Your task to perform on an android device: set the stopwatch Image 0: 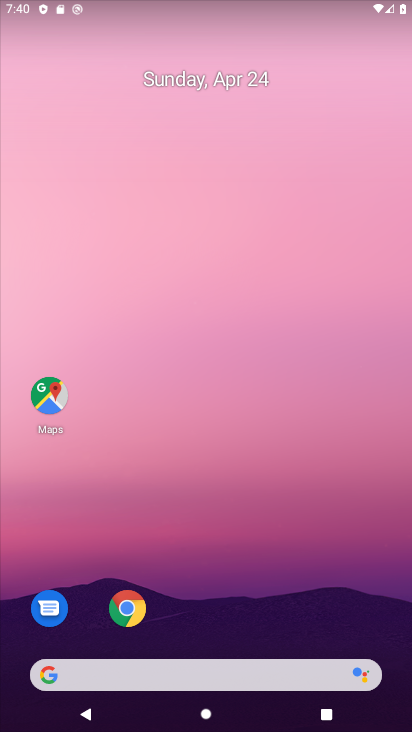
Step 0: drag from (243, 588) to (264, 110)
Your task to perform on an android device: set the stopwatch Image 1: 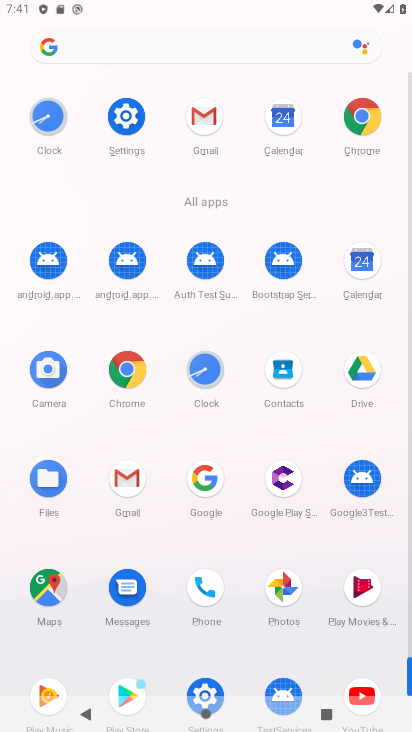
Step 1: click (215, 374)
Your task to perform on an android device: set the stopwatch Image 2: 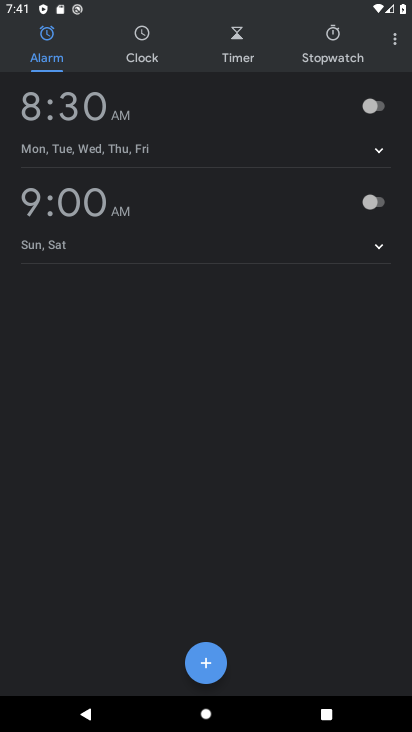
Step 2: click (327, 36)
Your task to perform on an android device: set the stopwatch Image 3: 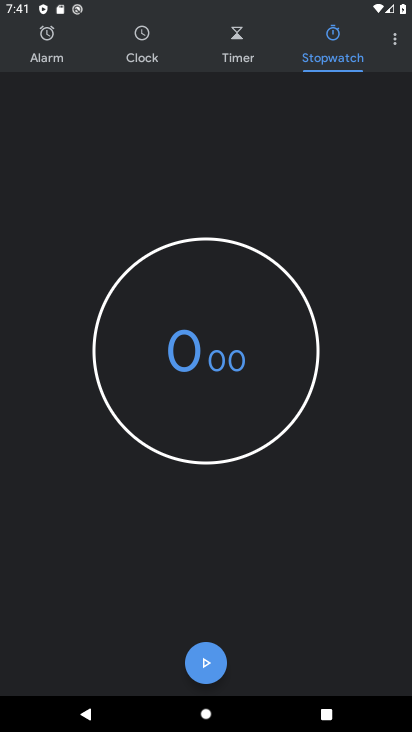
Step 3: click (240, 322)
Your task to perform on an android device: set the stopwatch Image 4: 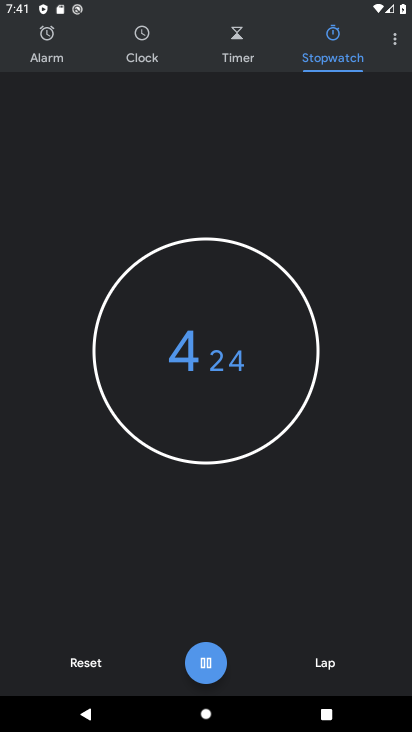
Step 4: click (207, 663)
Your task to perform on an android device: set the stopwatch Image 5: 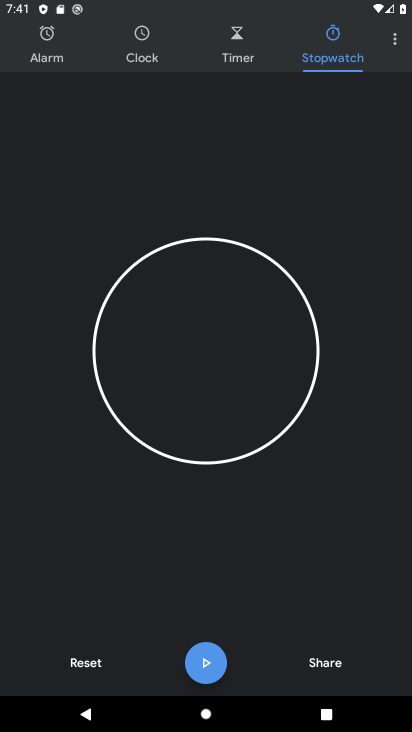
Step 5: task complete